Your task to perform on an android device: open chrome and create a bookmark for the current page Image 0: 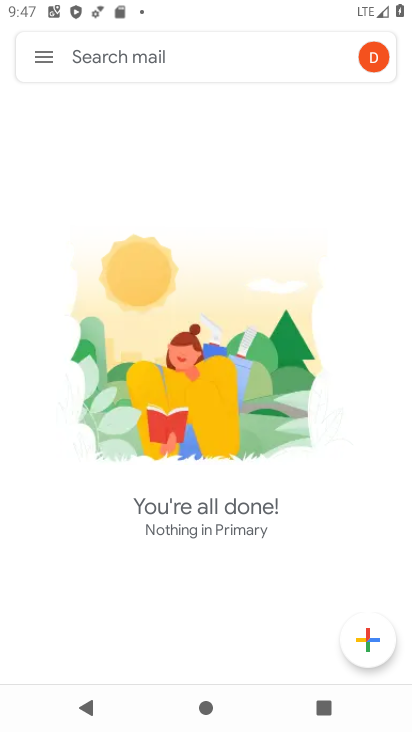
Step 0: press back button
Your task to perform on an android device: open chrome and create a bookmark for the current page Image 1: 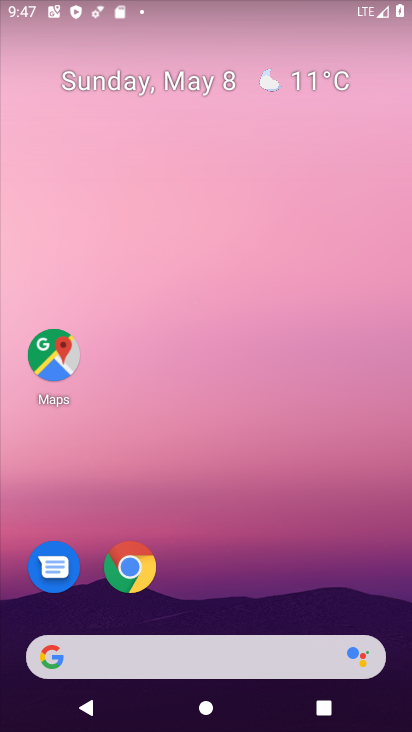
Step 1: click (133, 564)
Your task to perform on an android device: open chrome and create a bookmark for the current page Image 2: 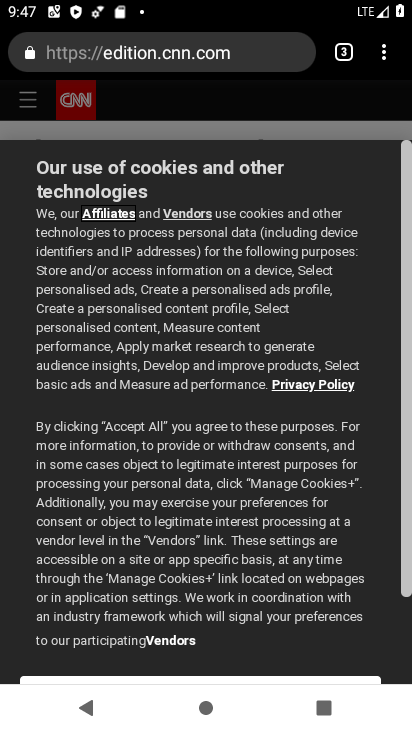
Step 2: task complete